Your task to perform on an android device: set the timer Image 0: 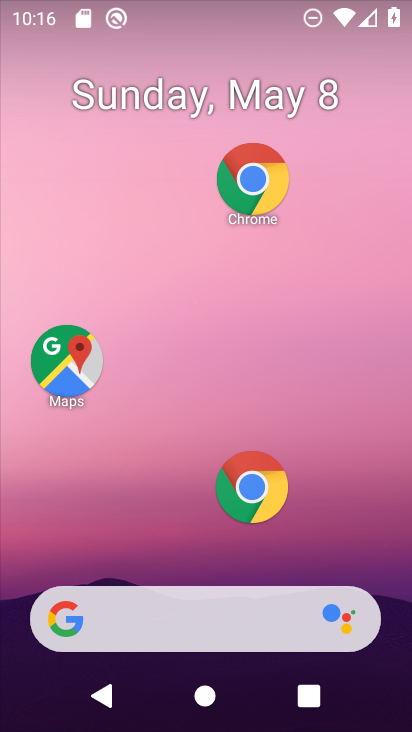
Step 0: drag from (171, 516) to (178, 0)
Your task to perform on an android device: set the timer Image 1: 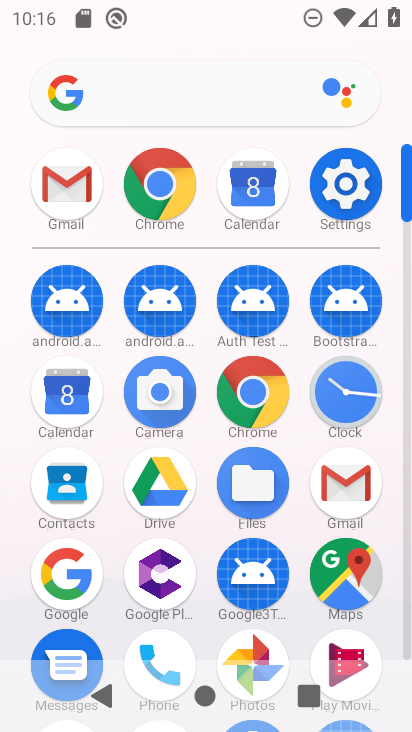
Step 1: click (358, 399)
Your task to perform on an android device: set the timer Image 2: 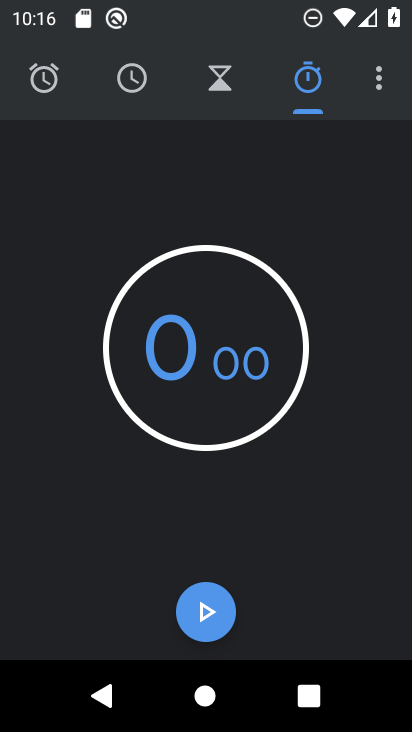
Step 2: click (222, 87)
Your task to perform on an android device: set the timer Image 3: 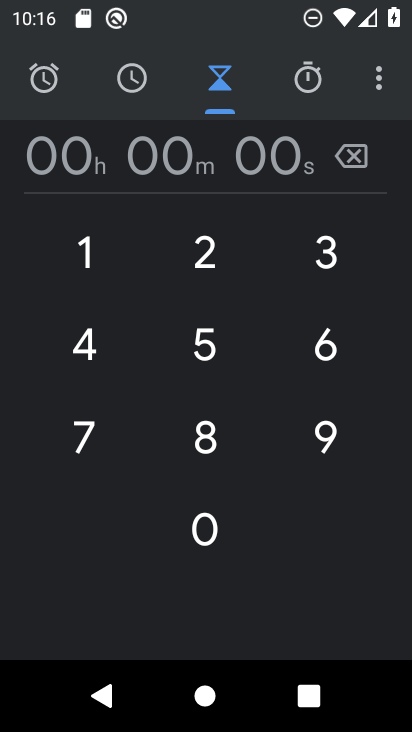
Step 3: click (88, 255)
Your task to perform on an android device: set the timer Image 4: 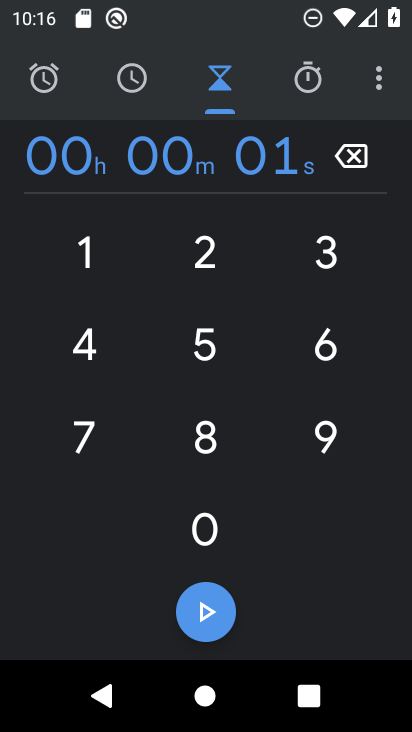
Step 4: click (88, 257)
Your task to perform on an android device: set the timer Image 5: 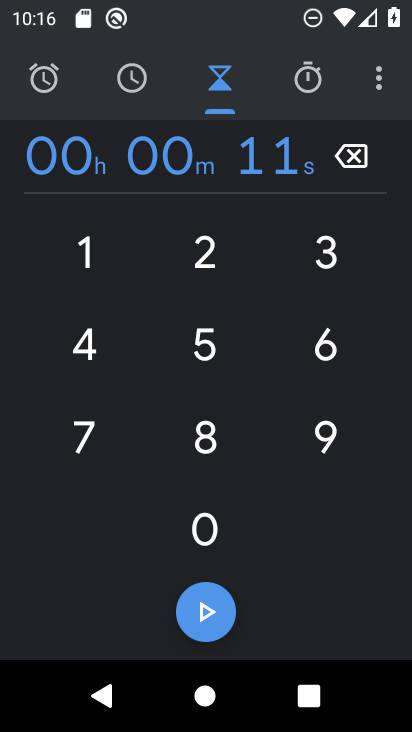
Step 5: task complete